Your task to perform on an android device: Go to Google Image 0: 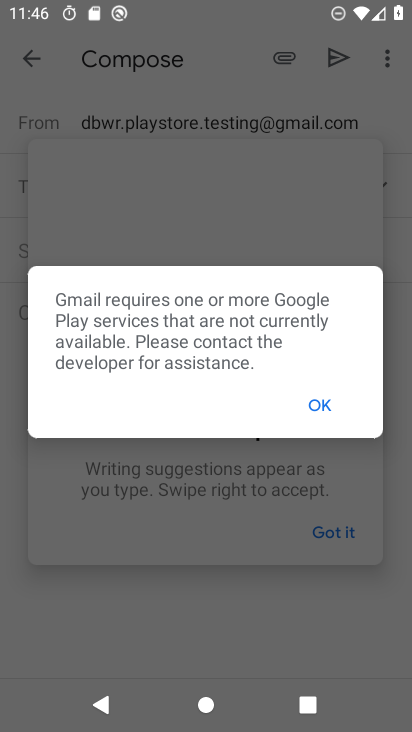
Step 0: press home button
Your task to perform on an android device: Go to Google Image 1: 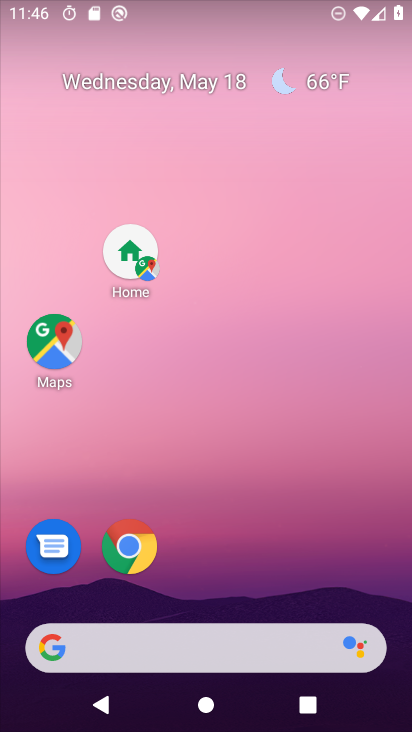
Step 1: click (100, 654)
Your task to perform on an android device: Go to Google Image 2: 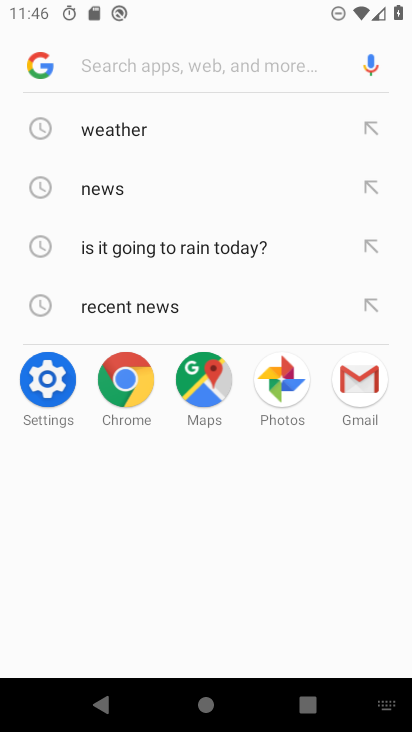
Step 2: task complete